Your task to perform on an android device: turn off sleep mode Image 0: 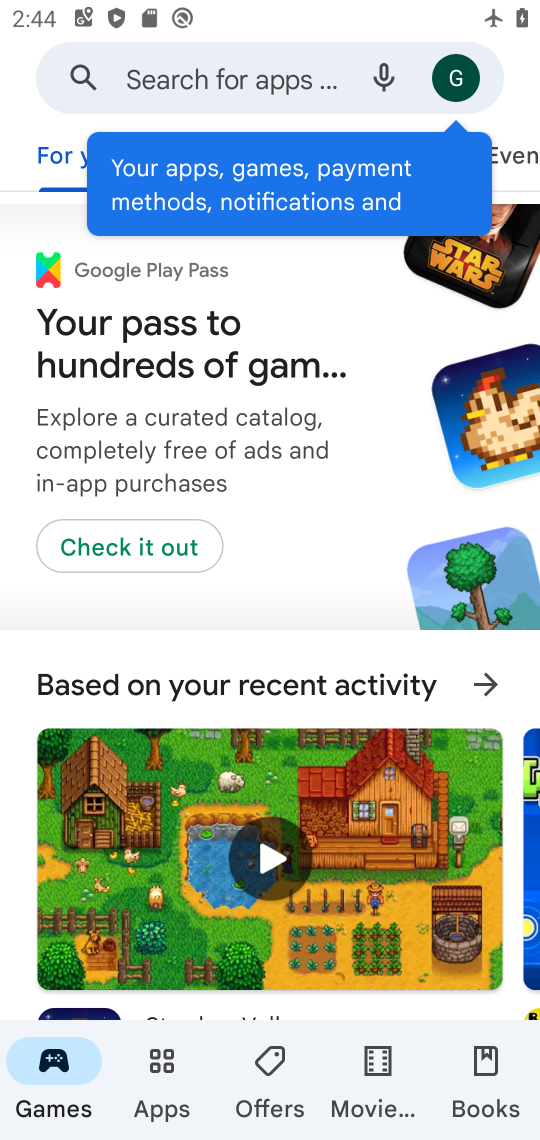
Step 0: press home button
Your task to perform on an android device: turn off sleep mode Image 1: 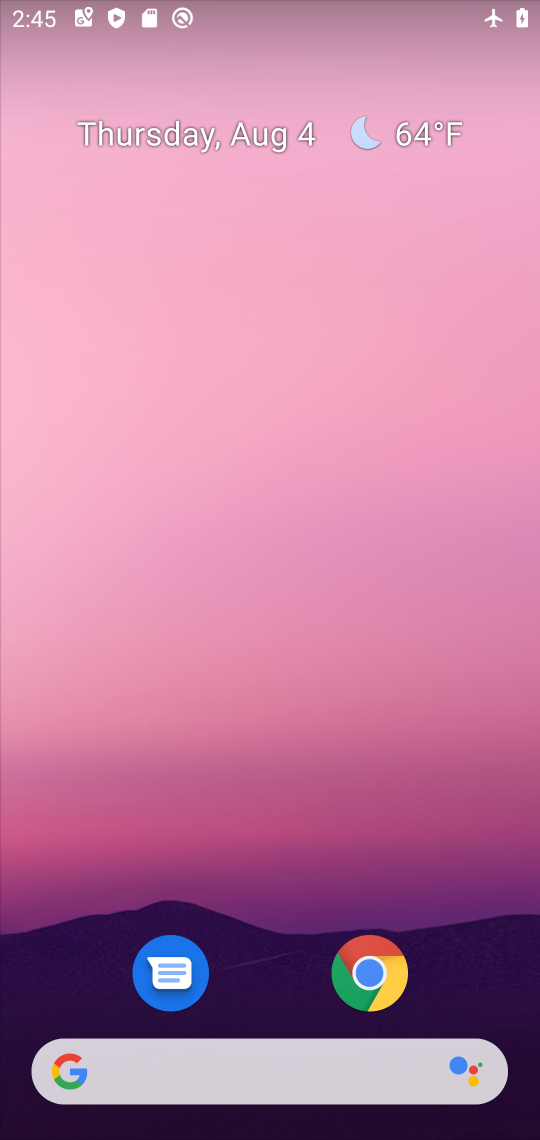
Step 1: drag from (309, 1017) to (528, 933)
Your task to perform on an android device: turn off sleep mode Image 2: 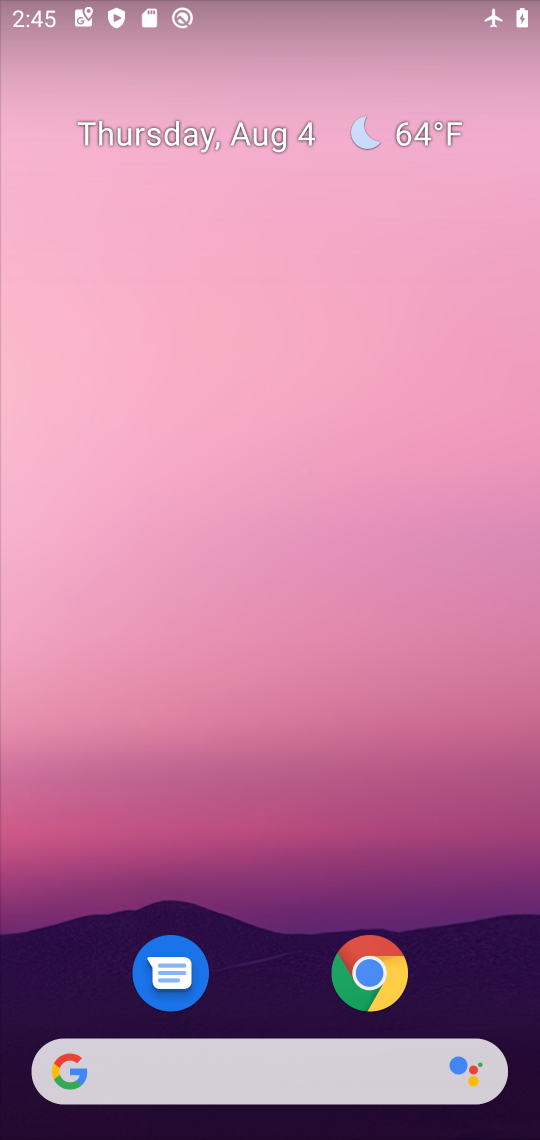
Step 2: drag from (261, 1008) to (226, 120)
Your task to perform on an android device: turn off sleep mode Image 3: 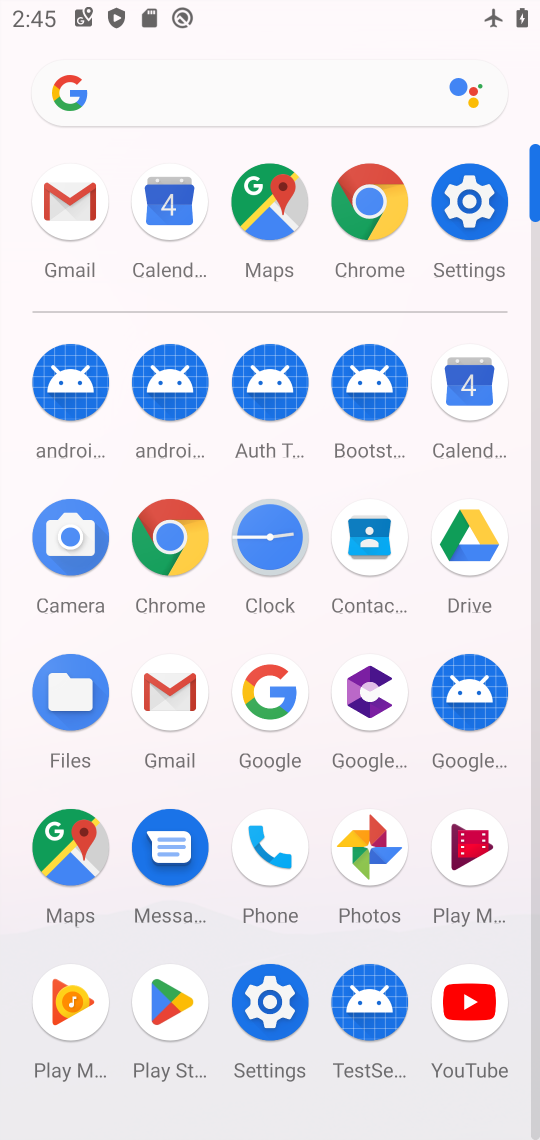
Step 3: click (268, 984)
Your task to perform on an android device: turn off sleep mode Image 4: 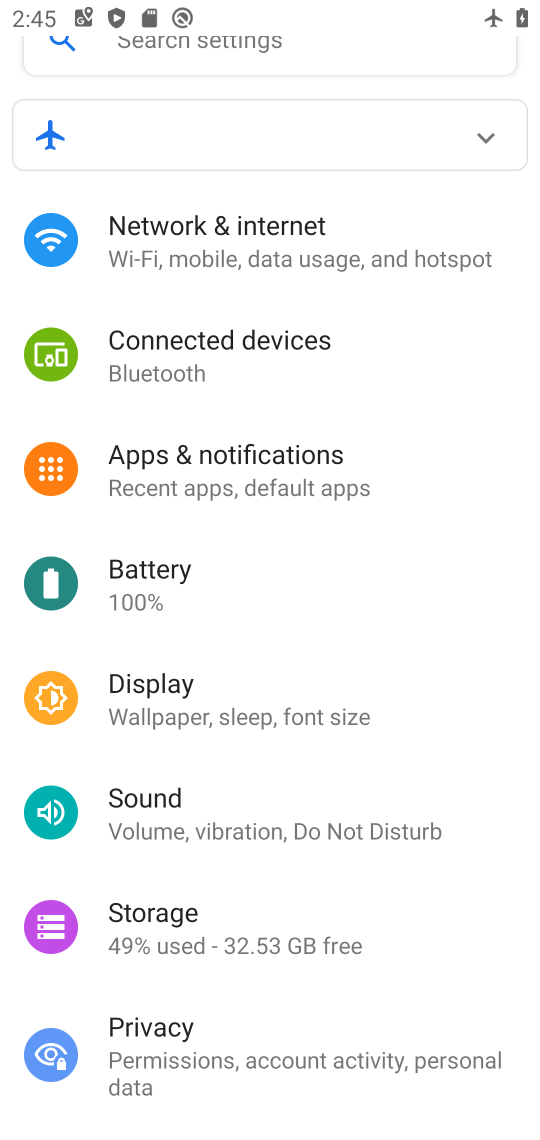
Step 4: task complete